Your task to perform on an android device: Go to Wikipedia Image 0: 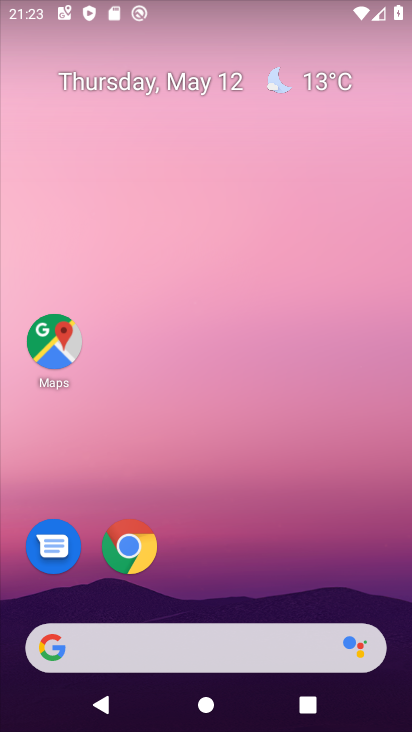
Step 0: click (138, 551)
Your task to perform on an android device: Go to Wikipedia Image 1: 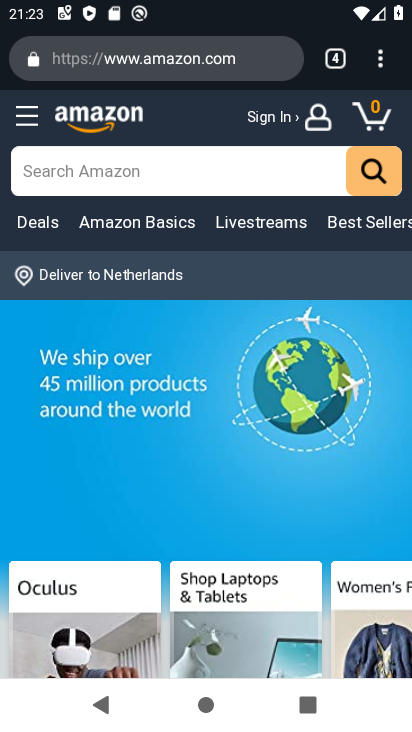
Step 1: drag from (383, 60) to (156, 122)
Your task to perform on an android device: Go to Wikipedia Image 2: 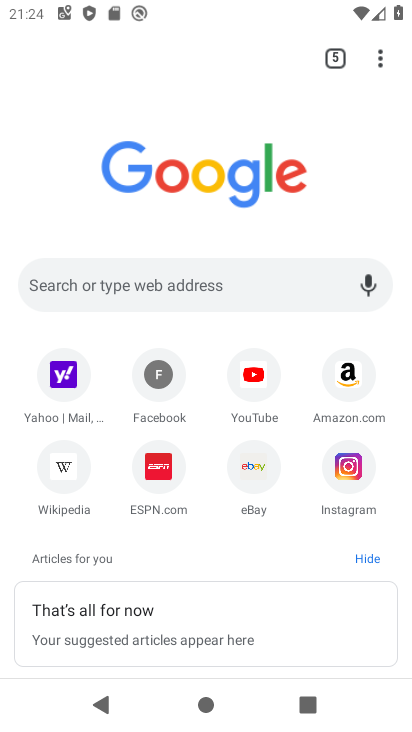
Step 2: click (57, 458)
Your task to perform on an android device: Go to Wikipedia Image 3: 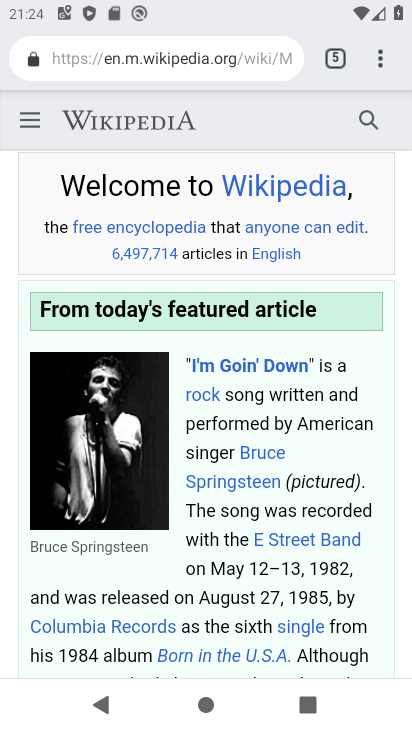
Step 3: task complete